Your task to perform on an android device: Go to Yahoo.com Image 0: 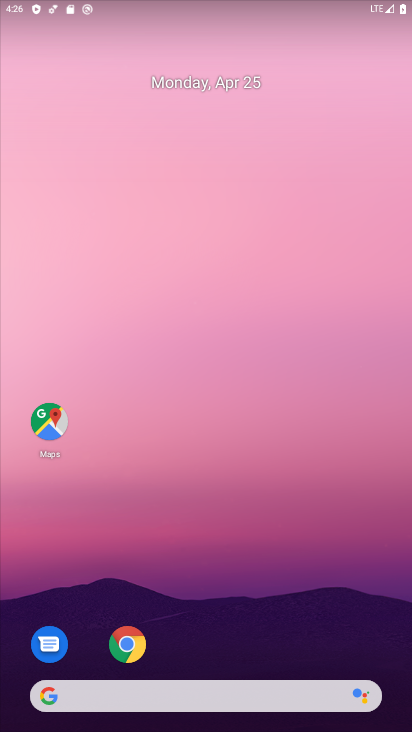
Step 0: click (131, 646)
Your task to perform on an android device: Go to Yahoo.com Image 1: 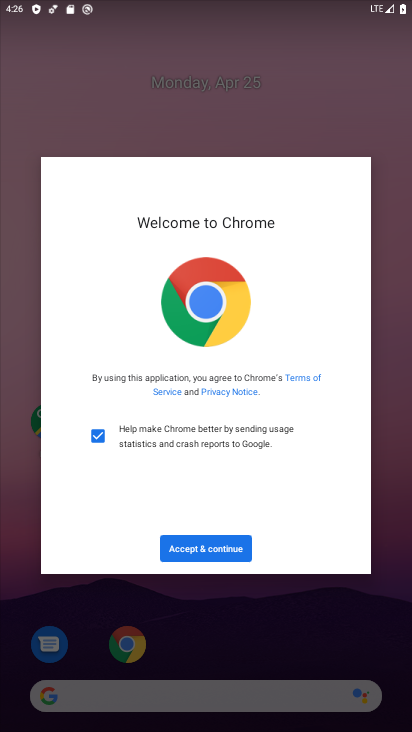
Step 1: click (222, 542)
Your task to perform on an android device: Go to Yahoo.com Image 2: 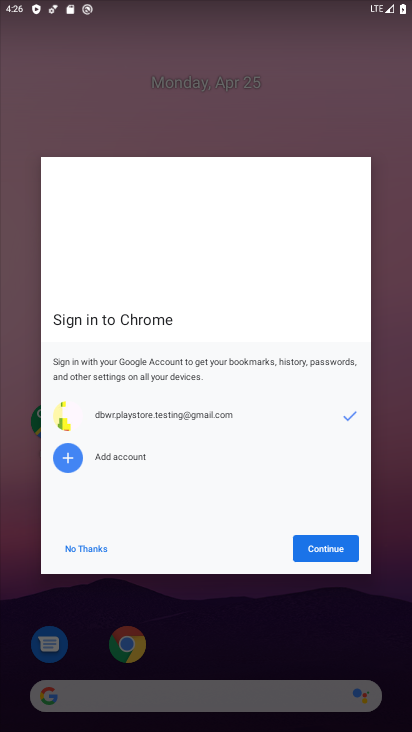
Step 2: click (314, 543)
Your task to perform on an android device: Go to Yahoo.com Image 3: 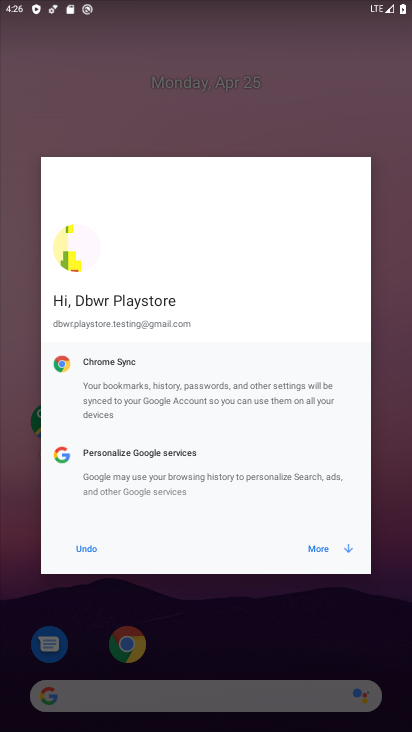
Step 3: click (314, 543)
Your task to perform on an android device: Go to Yahoo.com Image 4: 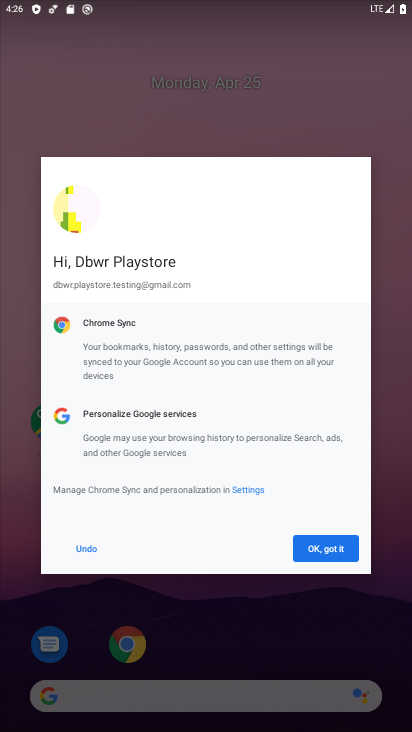
Step 4: click (314, 543)
Your task to perform on an android device: Go to Yahoo.com Image 5: 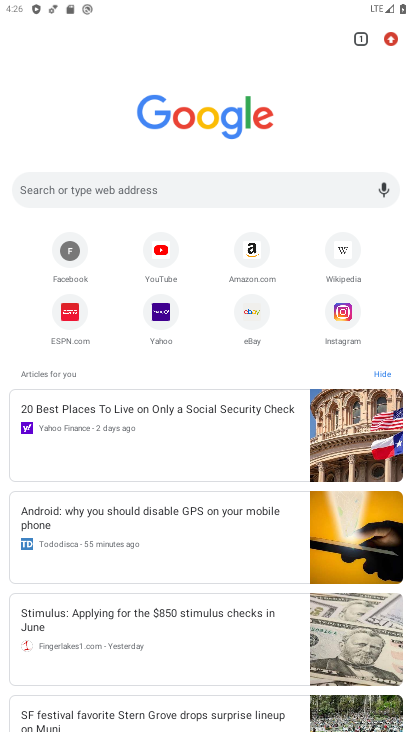
Step 5: click (167, 302)
Your task to perform on an android device: Go to Yahoo.com Image 6: 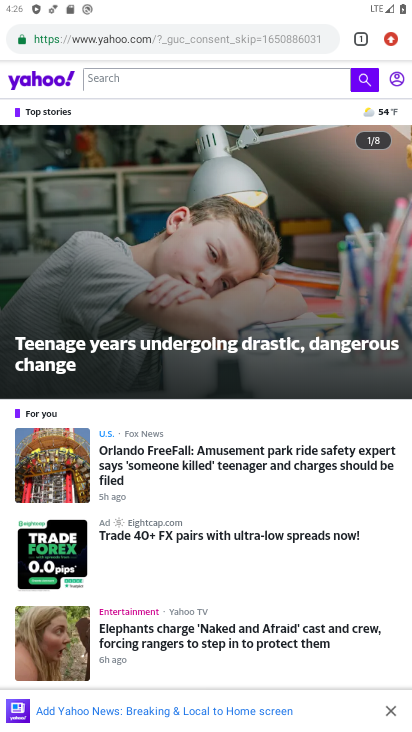
Step 6: task complete